Your task to perform on an android device: Toggle the flashlight Image 0: 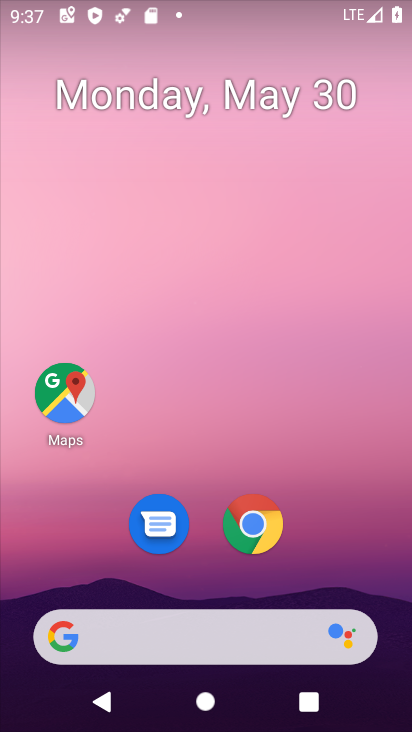
Step 0: drag from (307, 549) to (257, 42)
Your task to perform on an android device: Toggle the flashlight Image 1: 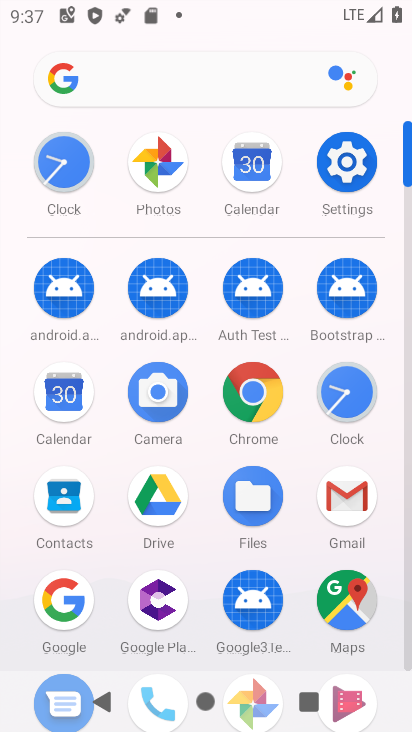
Step 1: click (345, 178)
Your task to perform on an android device: Toggle the flashlight Image 2: 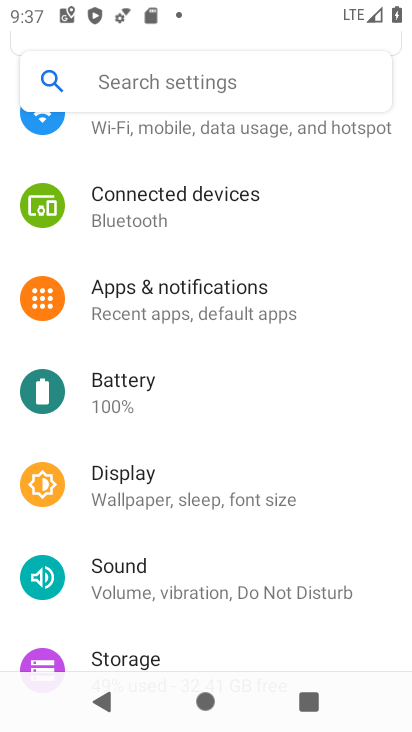
Step 2: drag from (283, 189) to (297, 724)
Your task to perform on an android device: Toggle the flashlight Image 3: 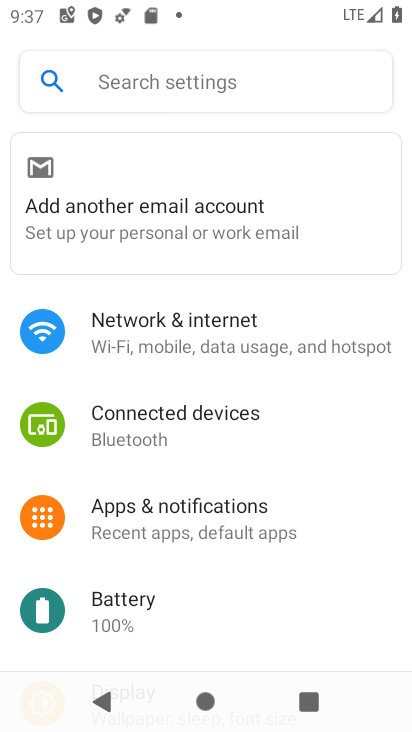
Step 3: click (293, 88)
Your task to perform on an android device: Toggle the flashlight Image 4: 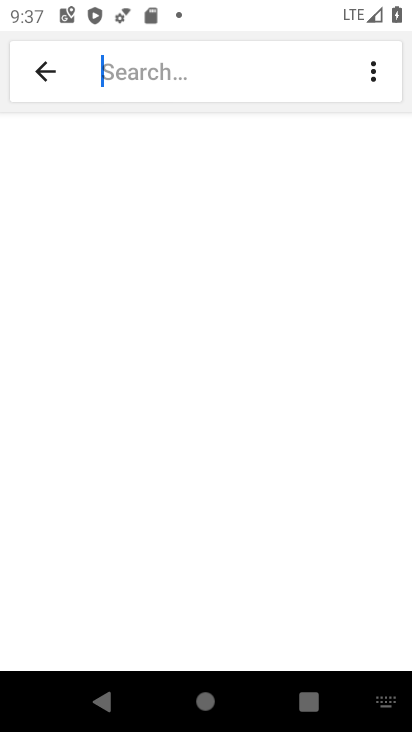
Step 4: type "Flashlight"
Your task to perform on an android device: Toggle the flashlight Image 5: 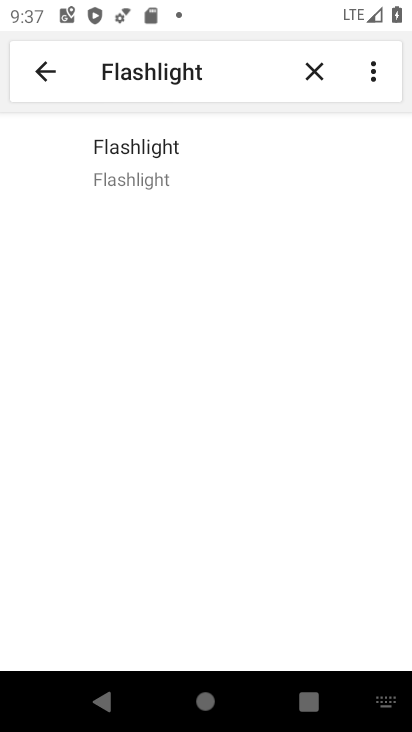
Step 5: click (159, 153)
Your task to perform on an android device: Toggle the flashlight Image 6: 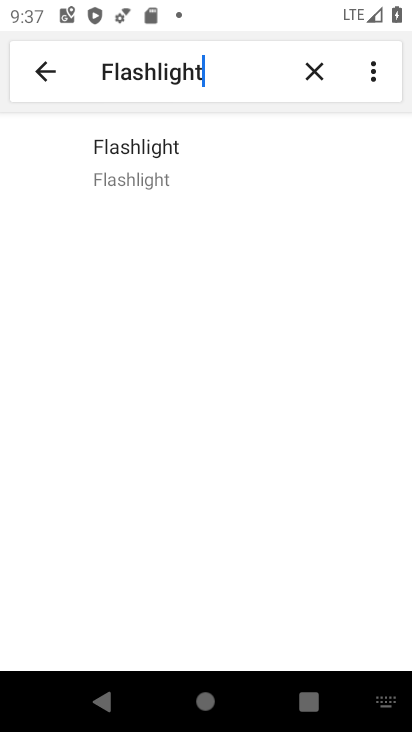
Step 6: click (159, 156)
Your task to perform on an android device: Toggle the flashlight Image 7: 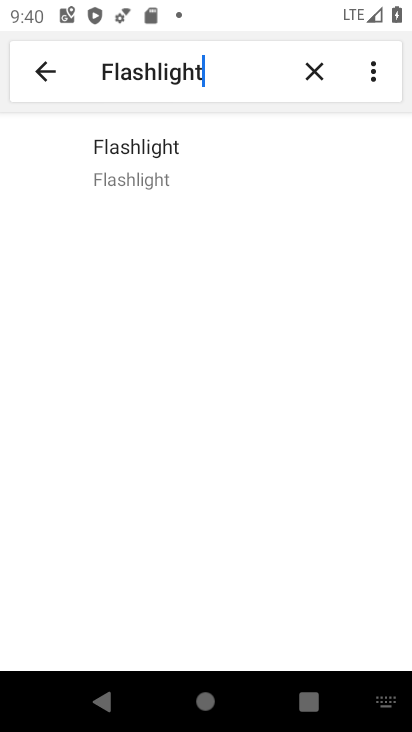
Step 7: task complete